Your task to perform on an android device: Open display settings Image 0: 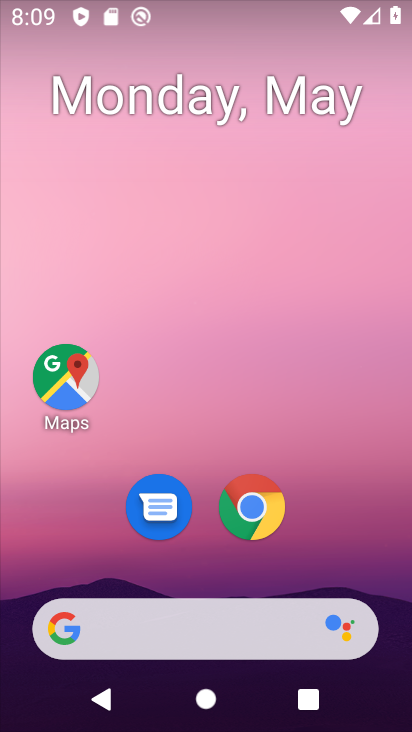
Step 0: drag from (179, 543) to (297, 19)
Your task to perform on an android device: Open display settings Image 1: 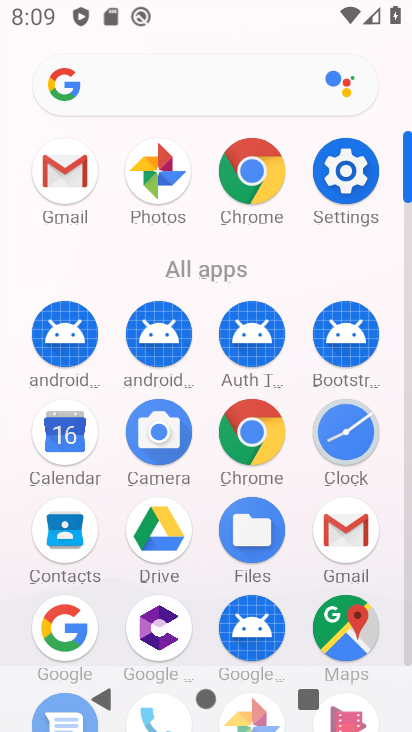
Step 1: click (361, 175)
Your task to perform on an android device: Open display settings Image 2: 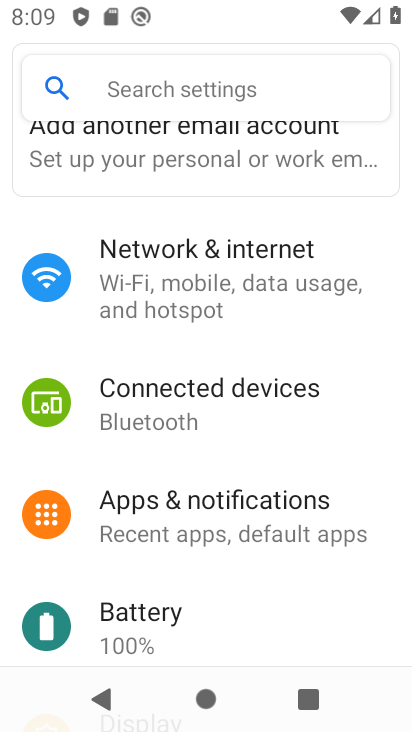
Step 2: drag from (167, 601) to (222, 363)
Your task to perform on an android device: Open display settings Image 3: 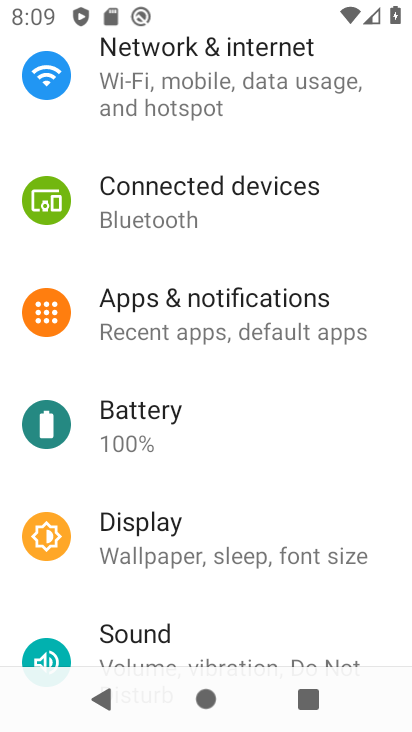
Step 3: click (138, 558)
Your task to perform on an android device: Open display settings Image 4: 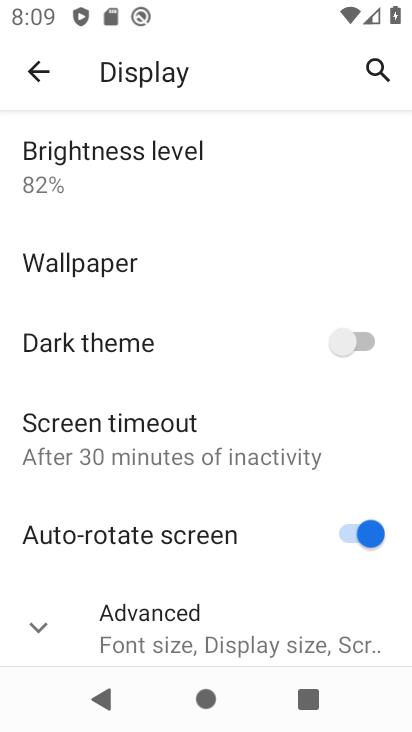
Step 4: task complete